Your task to perform on an android device: Go to Yahoo.com Image 0: 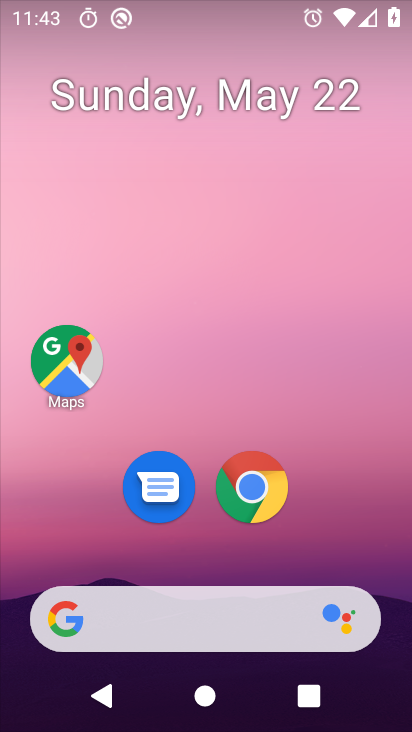
Step 0: drag from (406, 452) to (272, 72)
Your task to perform on an android device: Go to Yahoo.com Image 1: 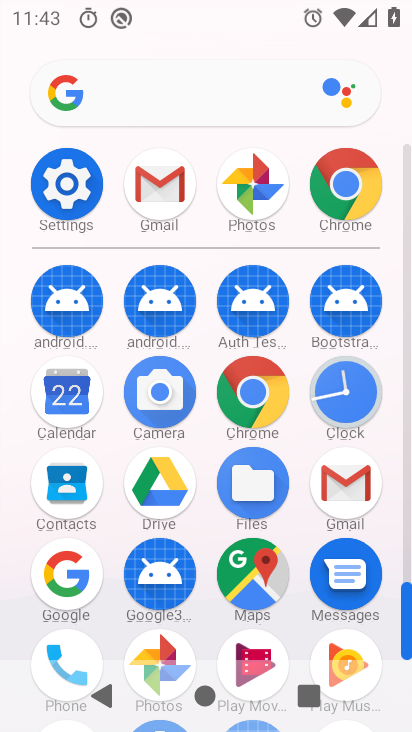
Step 1: click (258, 382)
Your task to perform on an android device: Go to Yahoo.com Image 2: 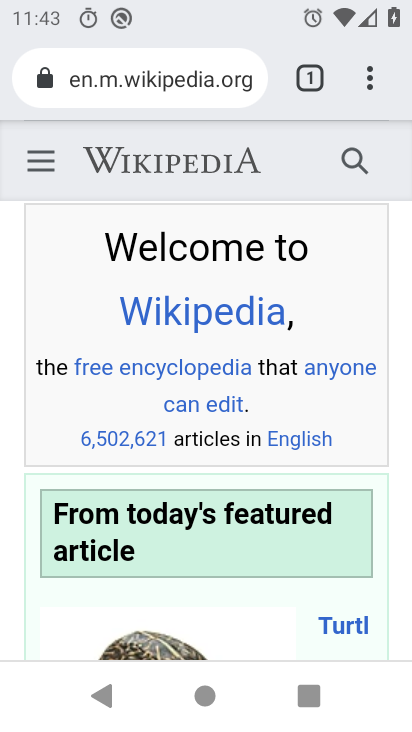
Step 2: click (137, 75)
Your task to perform on an android device: Go to Yahoo.com Image 3: 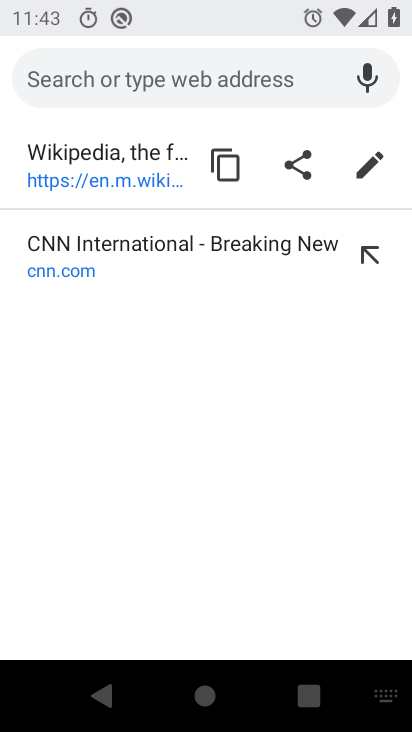
Step 3: type "yahoo.com"
Your task to perform on an android device: Go to Yahoo.com Image 4: 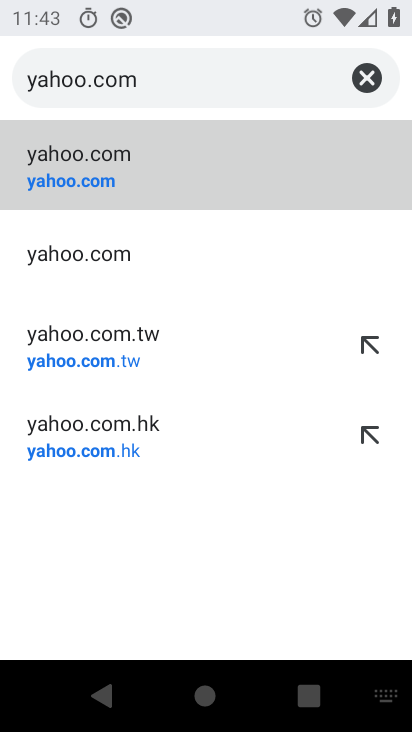
Step 4: click (126, 176)
Your task to perform on an android device: Go to Yahoo.com Image 5: 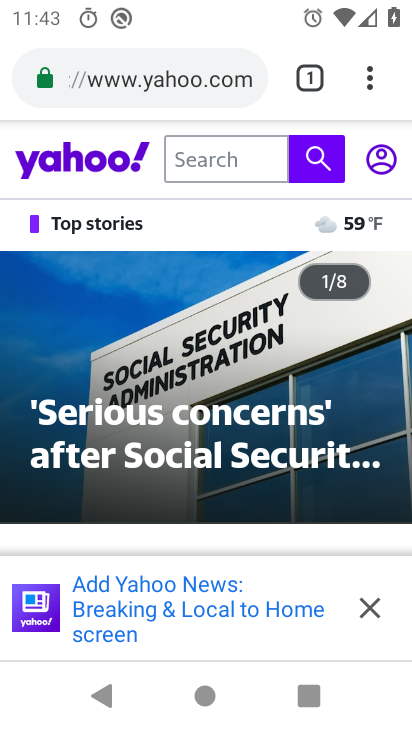
Step 5: task complete